Your task to perform on an android device: set default search engine in the chrome app Image 0: 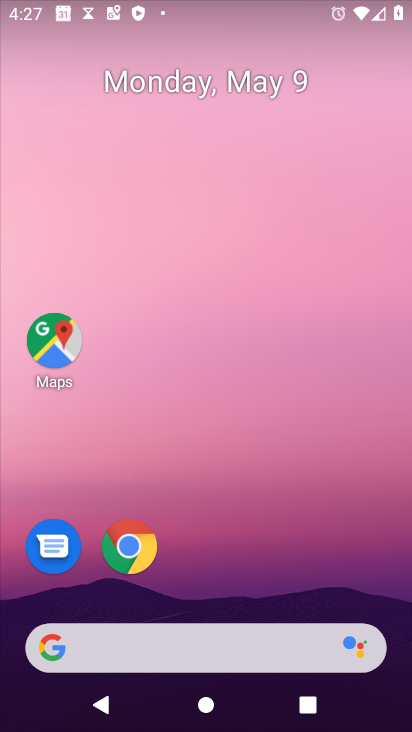
Step 0: drag from (260, 436) to (203, 10)
Your task to perform on an android device: set default search engine in the chrome app Image 1: 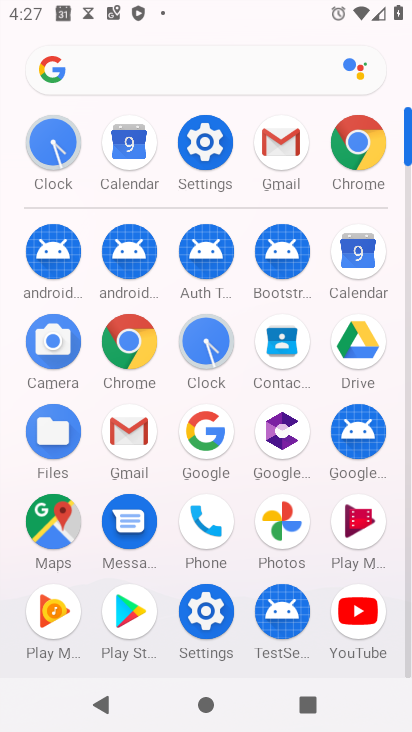
Step 1: click (353, 116)
Your task to perform on an android device: set default search engine in the chrome app Image 2: 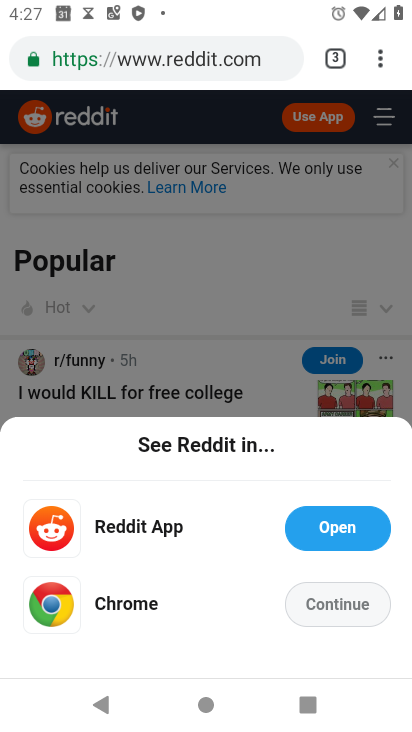
Step 2: drag from (389, 52) to (199, 589)
Your task to perform on an android device: set default search engine in the chrome app Image 3: 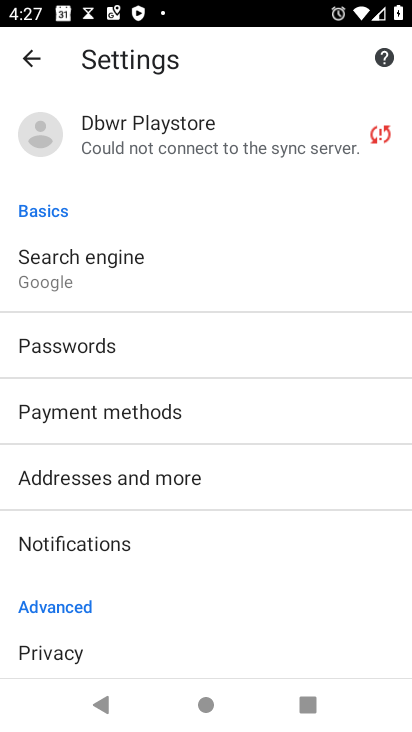
Step 3: drag from (113, 595) to (79, 275)
Your task to perform on an android device: set default search engine in the chrome app Image 4: 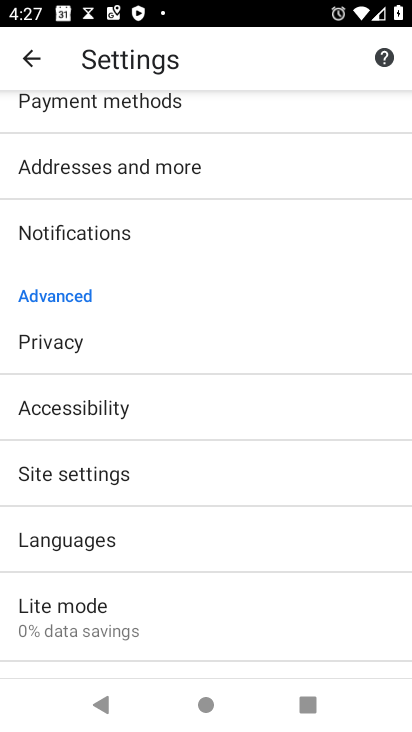
Step 4: drag from (77, 577) to (76, 253)
Your task to perform on an android device: set default search engine in the chrome app Image 5: 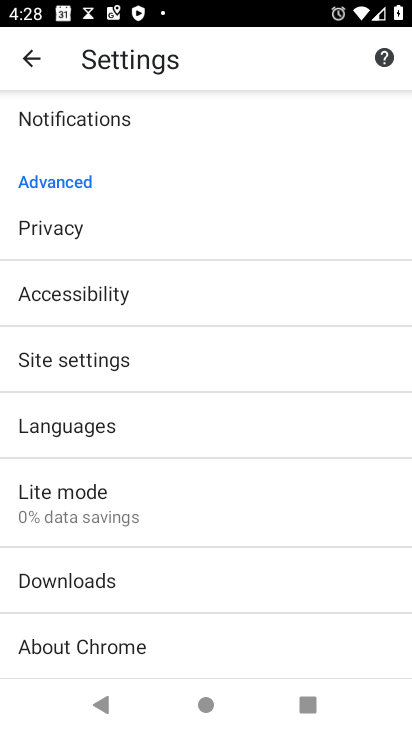
Step 5: drag from (177, 322) to (166, 582)
Your task to perform on an android device: set default search engine in the chrome app Image 6: 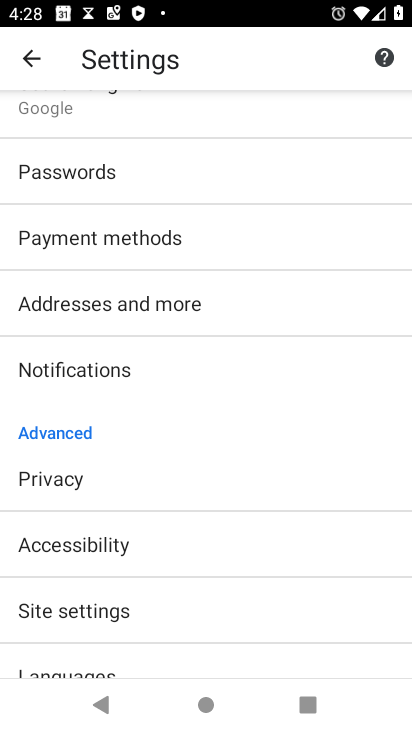
Step 6: drag from (208, 232) to (213, 556)
Your task to perform on an android device: set default search engine in the chrome app Image 7: 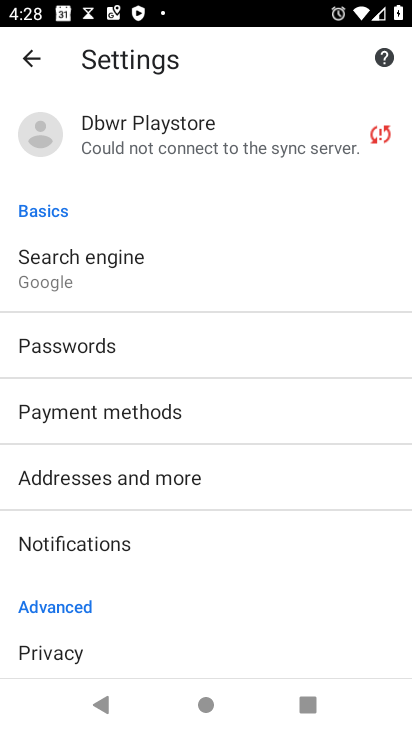
Step 7: click (82, 259)
Your task to perform on an android device: set default search engine in the chrome app Image 8: 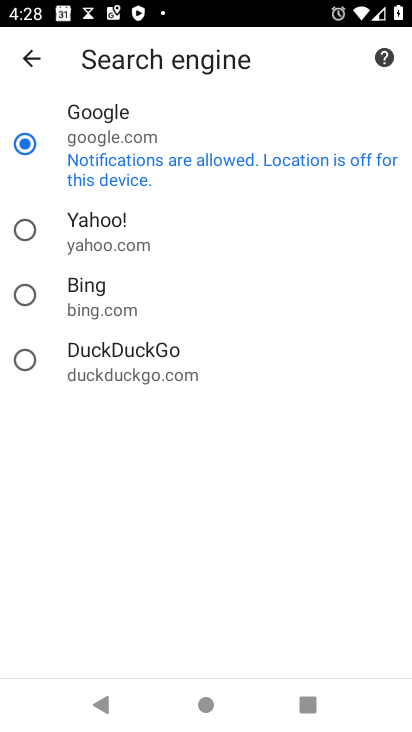
Step 8: task complete